Your task to perform on an android device: turn on javascript in the chrome app Image 0: 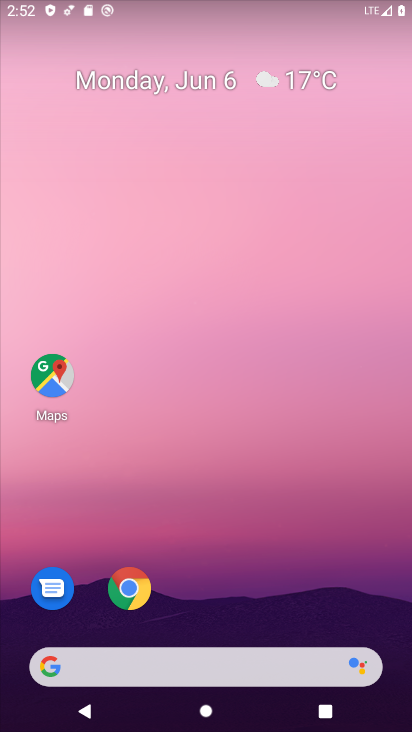
Step 0: click (123, 599)
Your task to perform on an android device: turn on javascript in the chrome app Image 1: 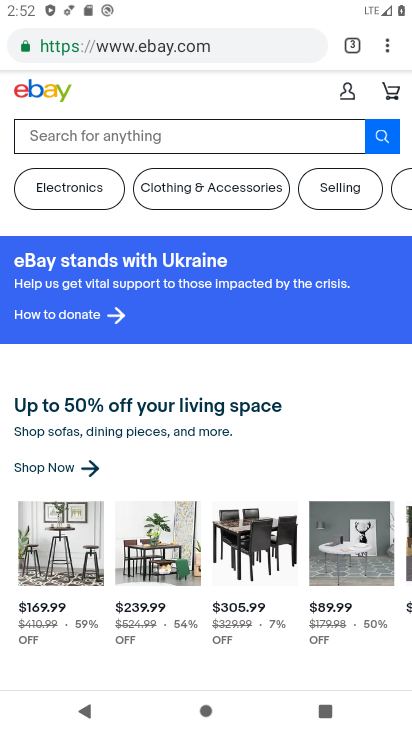
Step 1: drag from (393, 46) to (247, 550)
Your task to perform on an android device: turn on javascript in the chrome app Image 2: 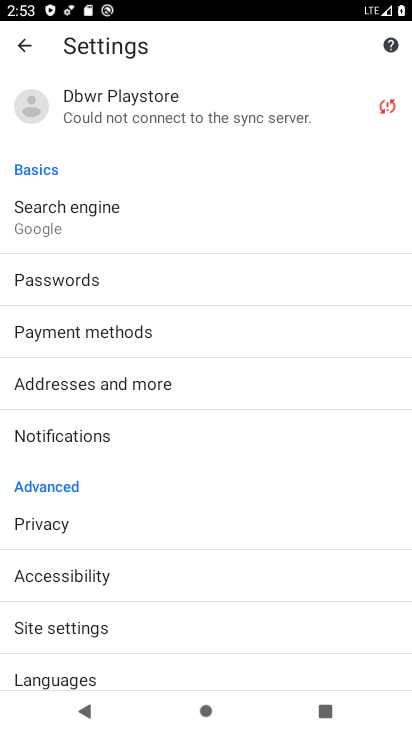
Step 2: click (146, 624)
Your task to perform on an android device: turn on javascript in the chrome app Image 3: 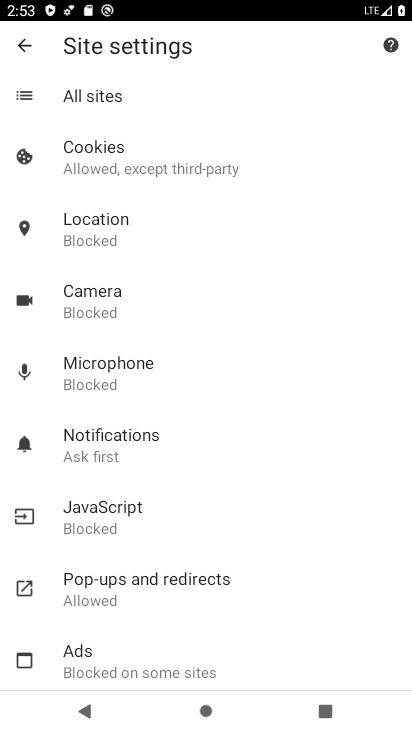
Step 3: click (147, 507)
Your task to perform on an android device: turn on javascript in the chrome app Image 4: 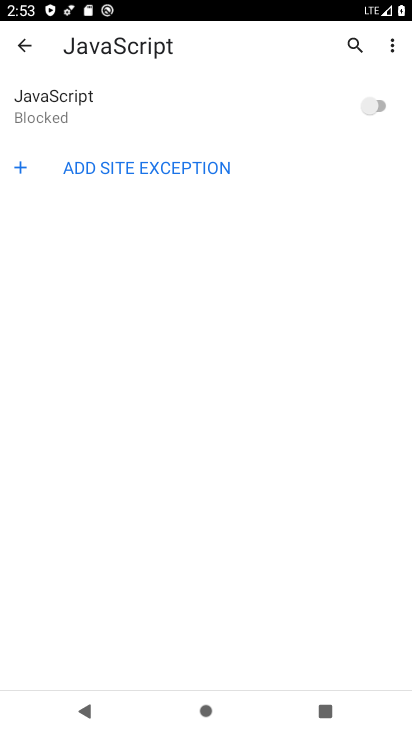
Step 4: click (369, 111)
Your task to perform on an android device: turn on javascript in the chrome app Image 5: 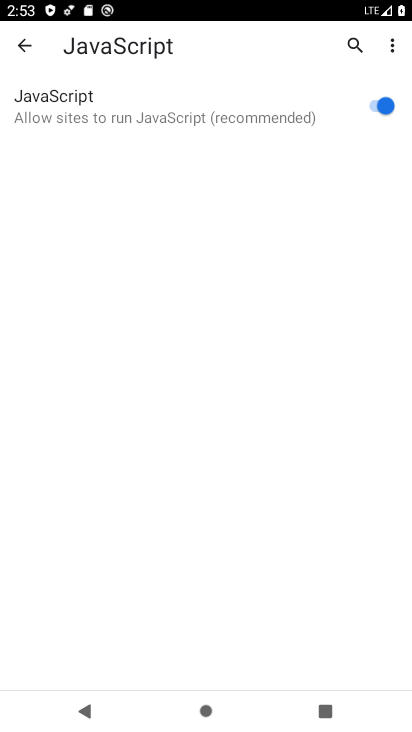
Step 5: task complete